Your task to perform on an android device: What's the weather today? Image 0: 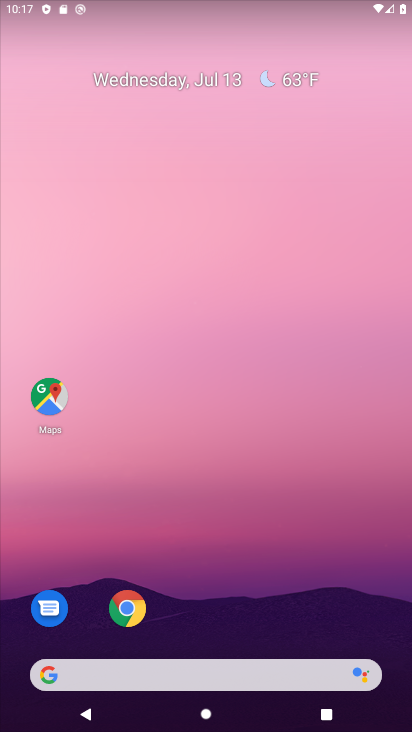
Step 0: drag from (361, 577) to (407, 281)
Your task to perform on an android device: What's the weather today? Image 1: 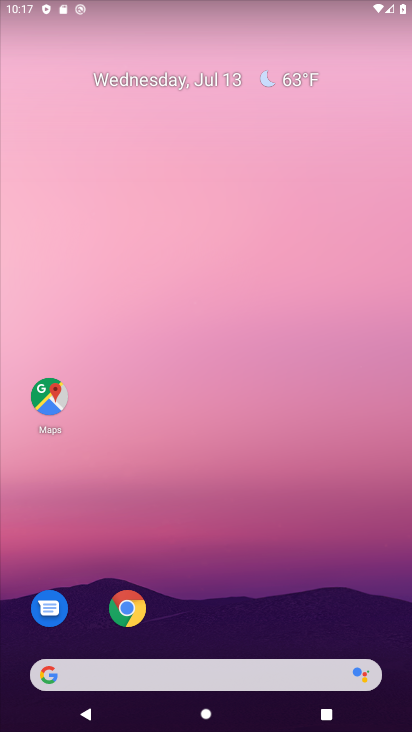
Step 1: drag from (231, 647) to (296, 78)
Your task to perform on an android device: What's the weather today? Image 2: 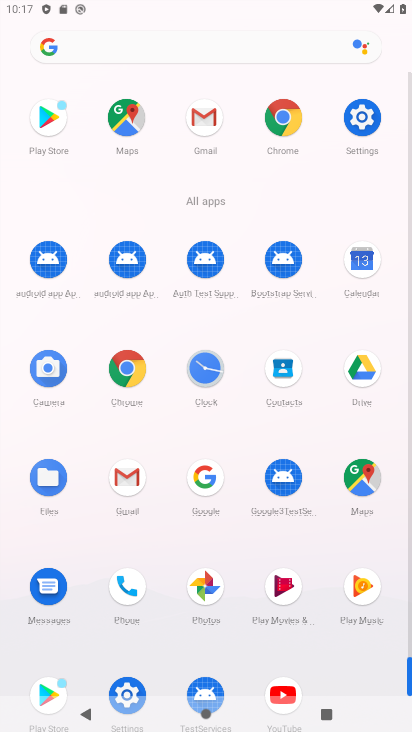
Step 2: click (128, 374)
Your task to perform on an android device: What's the weather today? Image 3: 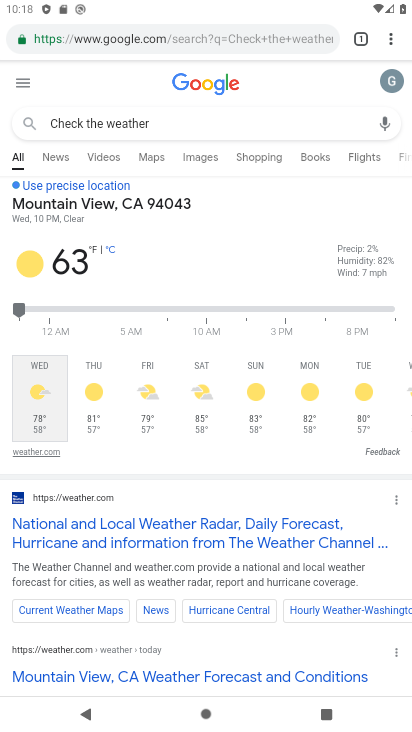
Step 3: click (260, 36)
Your task to perform on an android device: What's the weather today? Image 4: 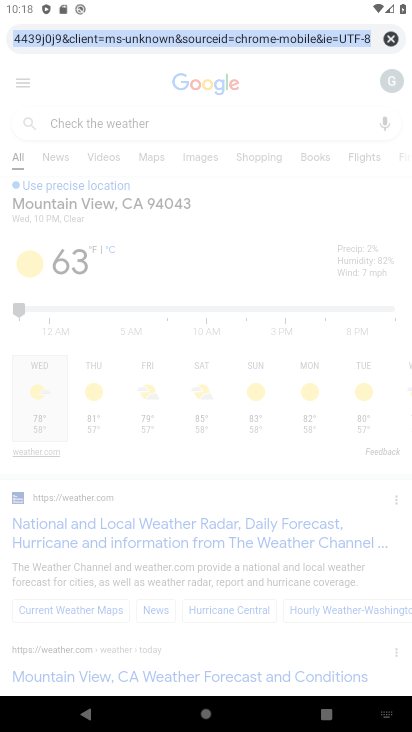
Step 4: click (387, 36)
Your task to perform on an android device: What's the weather today? Image 5: 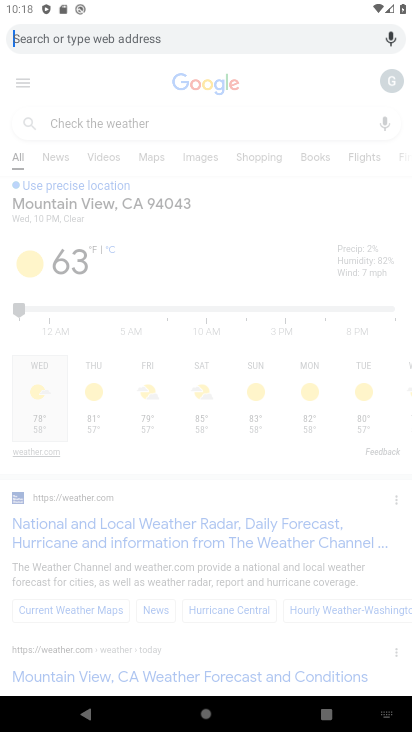
Step 5: type "What's the weather today?"
Your task to perform on an android device: What's the weather today? Image 6: 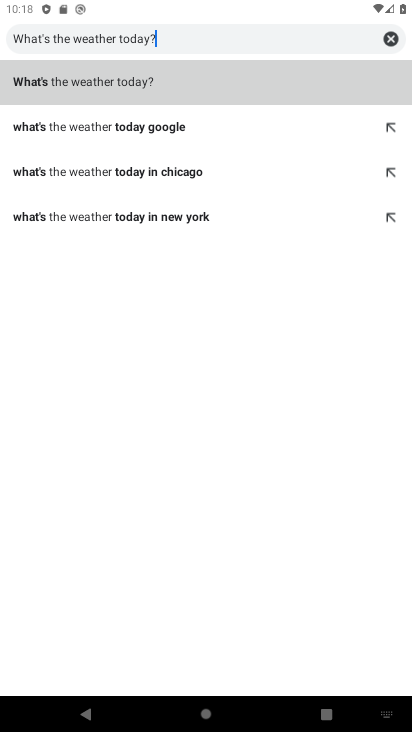
Step 6: click (114, 79)
Your task to perform on an android device: What's the weather today? Image 7: 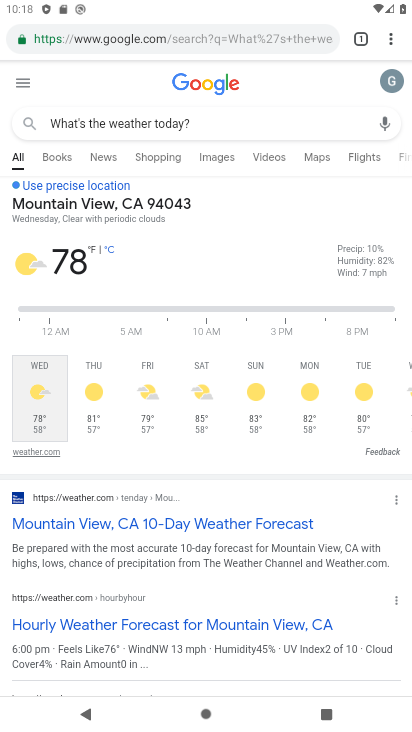
Step 7: task complete